Your task to perform on an android device: toggle notification dots Image 0: 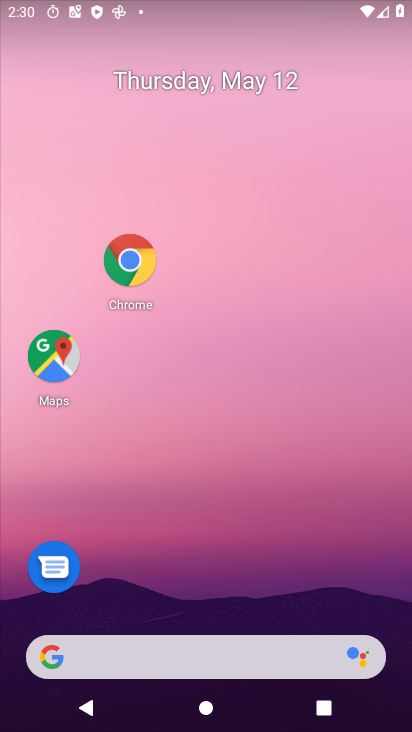
Step 0: drag from (163, 632) to (222, 222)
Your task to perform on an android device: toggle notification dots Image 1: 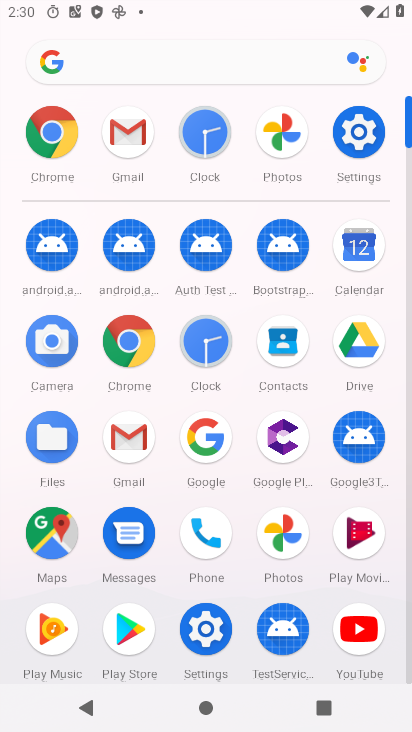
Step 1: click (373, 133)
Your task to perform on an android device: toggle notification dots Image 2: 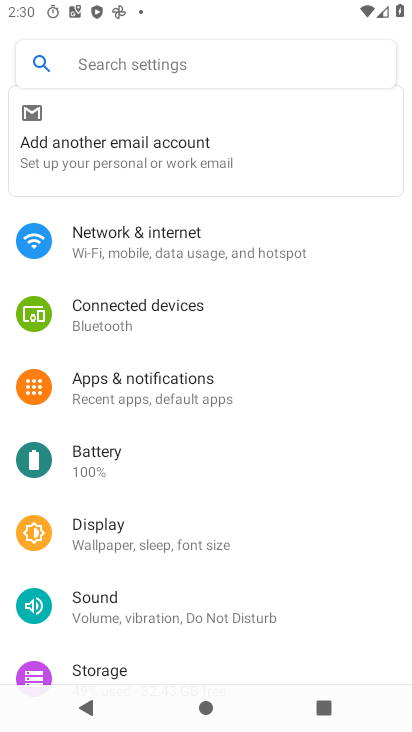
Step 2: drag from (180, 644) to (160, 270)
Your task to perform on an android device: toggle notification dots Image 3: 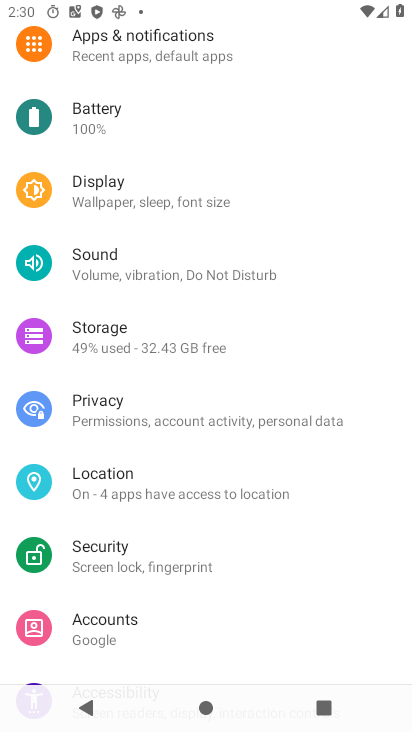
Step 3: drag from (179, 76) to (179, 458)
Your task to perform on an android device: toggle notification dots Image 4: 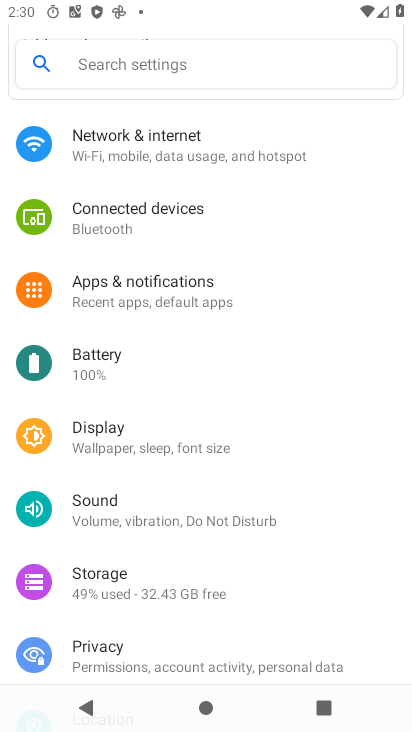
Step 4: click (146, 294)
Your task to perform on an android device: toggle notification dots Image 5: 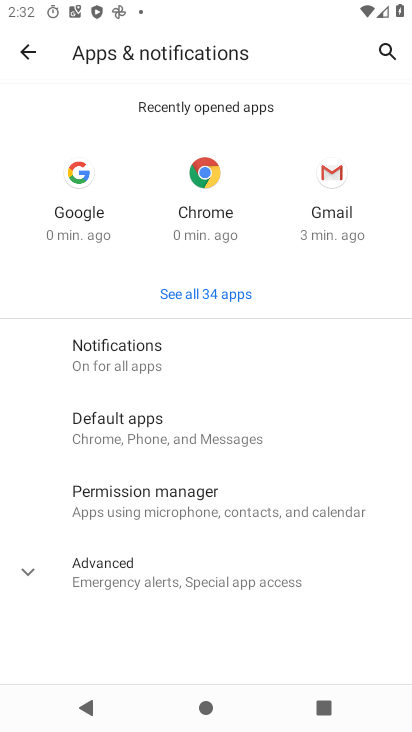
Step 5: click (108, 358)
Your task to perform on an android device: toggle notification dots Image 6: 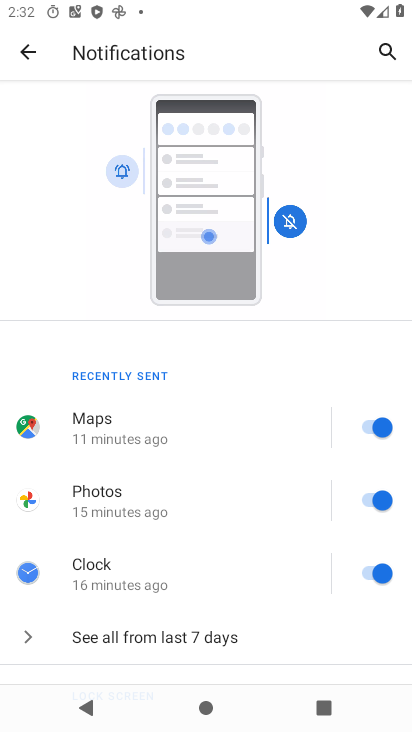
Step 6: drag from (228, 647) to (222, 316)
Your task to perform on an android device: toggle notification dots Image 7: 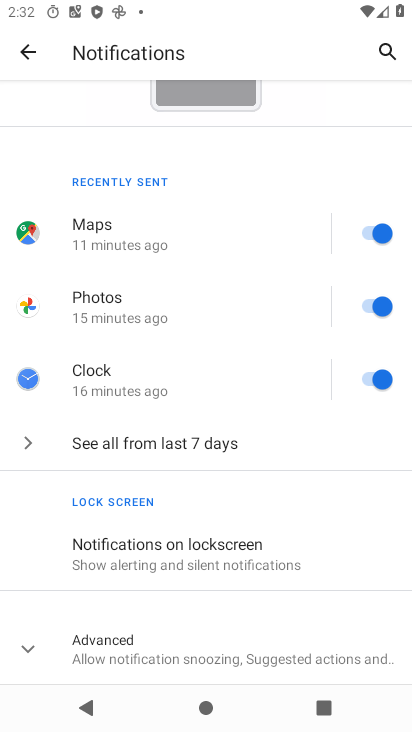
Step 7: click (153, 648)
Your task to perform on an android device: toggle notification dots Image 8: 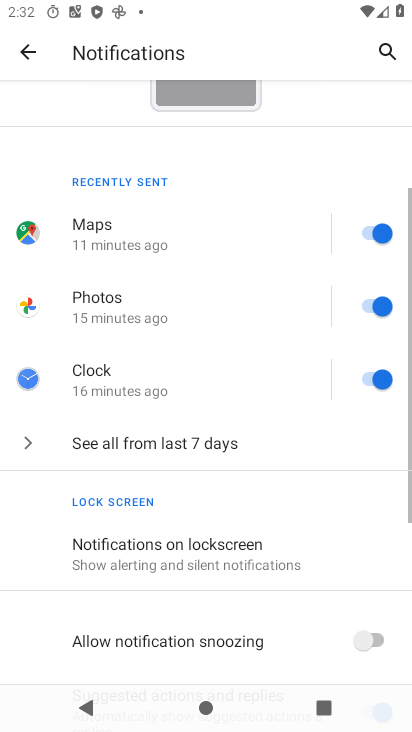
Step 8: drag from (163, 668) to (165, 419)
Your task to perform on an android device: toggle notification dots Image 9: 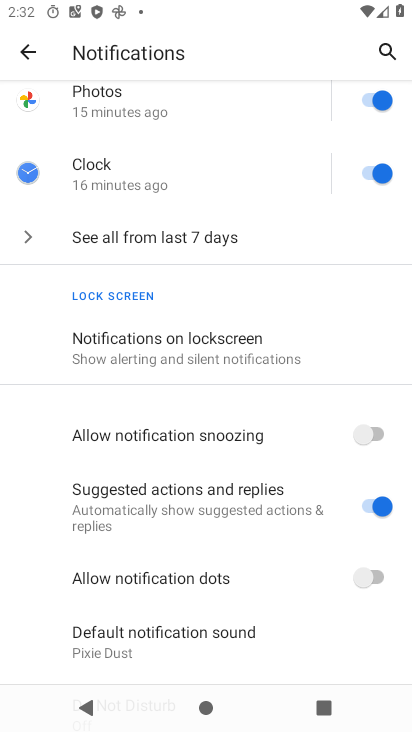
Step 9: click (375, 576)
Your task to perform on an android device: toggle notification dots Image 10: 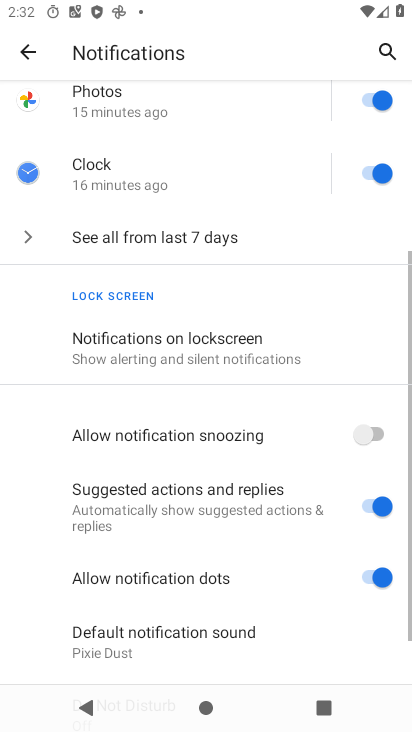
Step 10: task complete